Your task to perform on an android device: open chrome privacy settings Image 0: 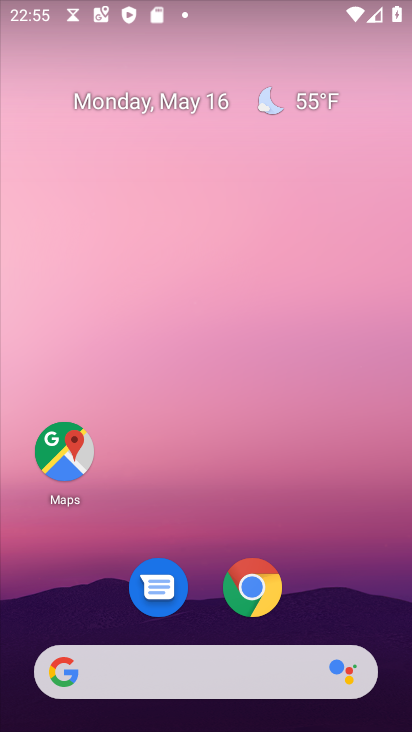
Step 0: drag from (334, 571) to (207, 15)
Your task to perform on an android device: open chrome privacy settings Image 1: 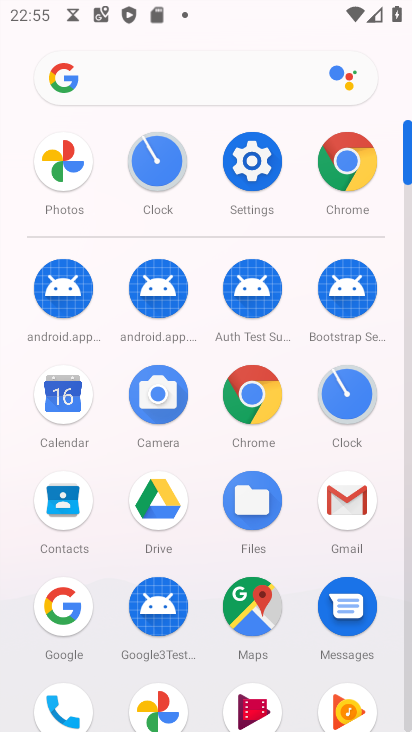
Step 1: drag from (19, 573) to (24, 147)
Your task to perform on an android device: open chrome privacy settings Image 2: 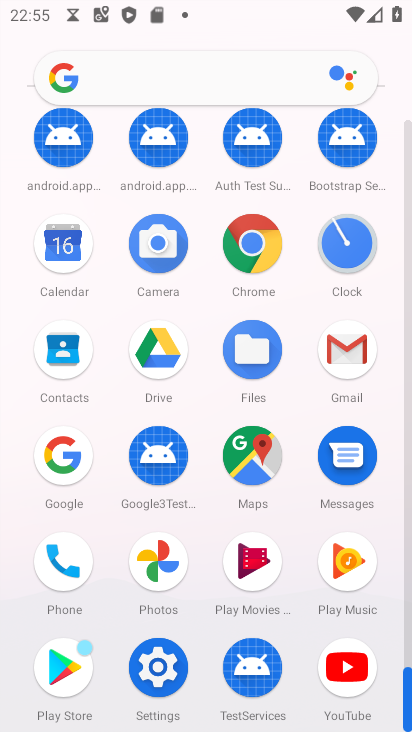
Step 2: click (247, 240)
Your task to perform on an android device: open chrome privacy settings Image 3: 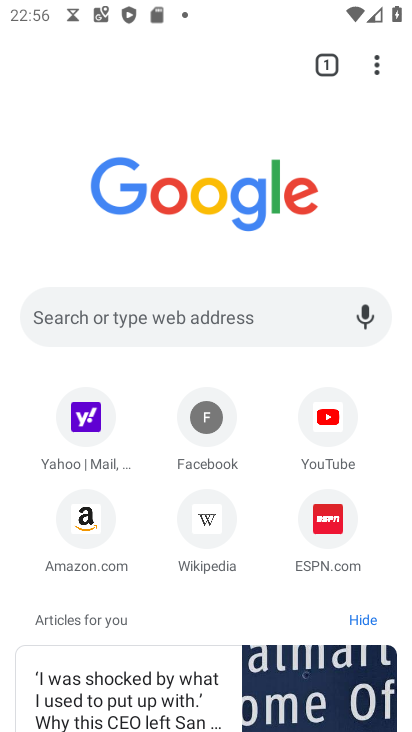
Step 3: drag from (30, 508) to (10, 138)
Your task to perform on an android device: open chrome privacy settings Image 4: 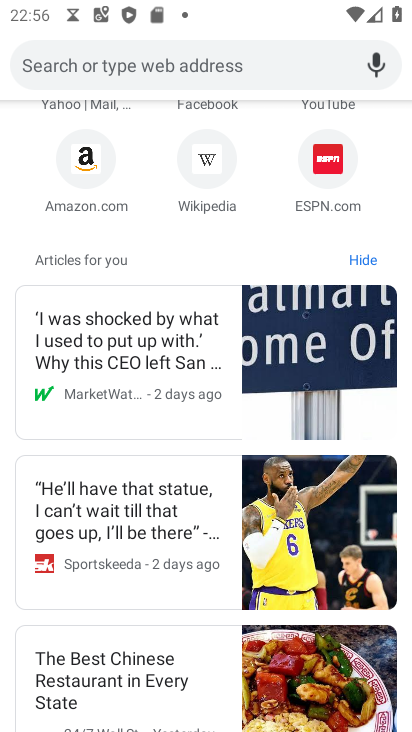
Step 4: drag from (144, 233) to (146, 550)
Your task to perform on an android device: open chrome privacy settings Image 5: 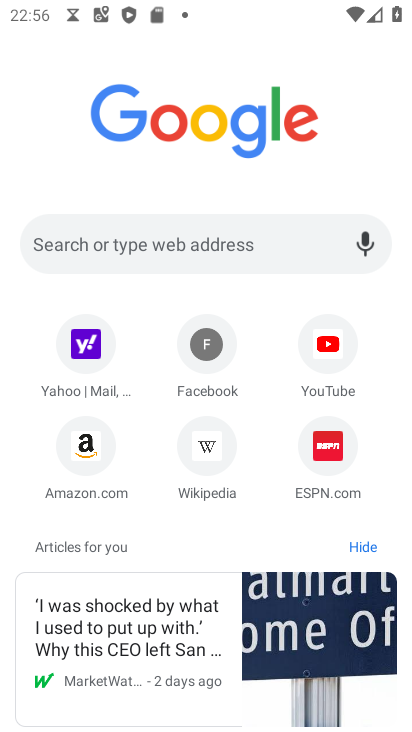
Step 5: drag from (326, 111) to (285, 455)
Your task to perform on an android device: open chrome privacy settings Image 6: 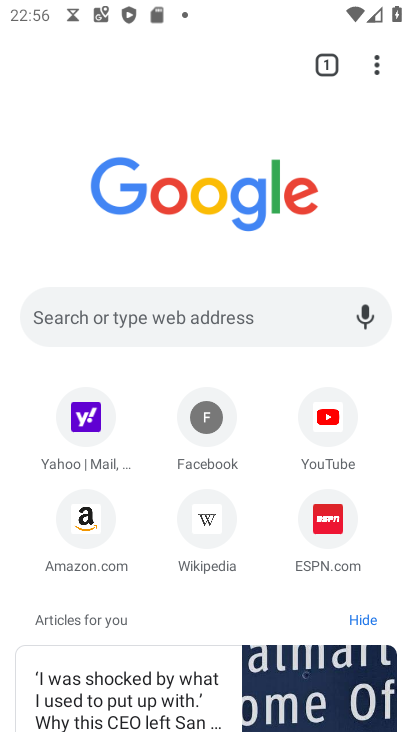
Step 6: drag from (375, 69) to (153, 543)
Your task to perform on an android device: open chrome privacy settings Image 7: 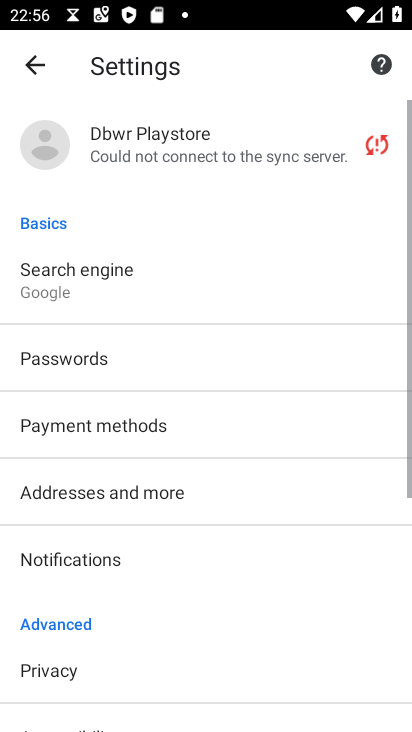
Step 7: click (175, 609)
Your task to perform on an android device: open chrome privacy settings Image 8: 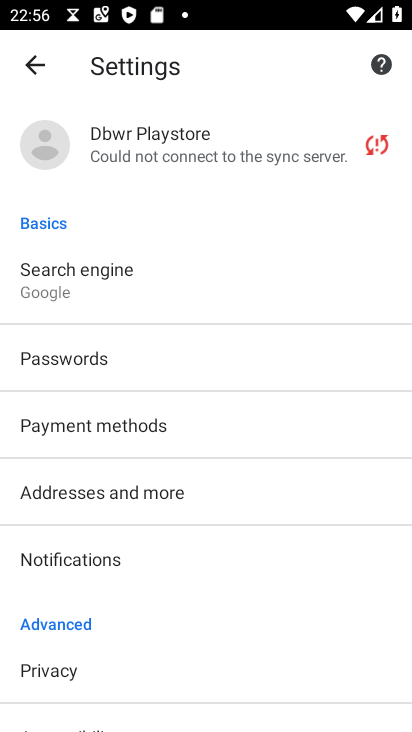
Step 8: click (110, 665)
Your task to perform on an android device: open chrome privacy settings Image 9: 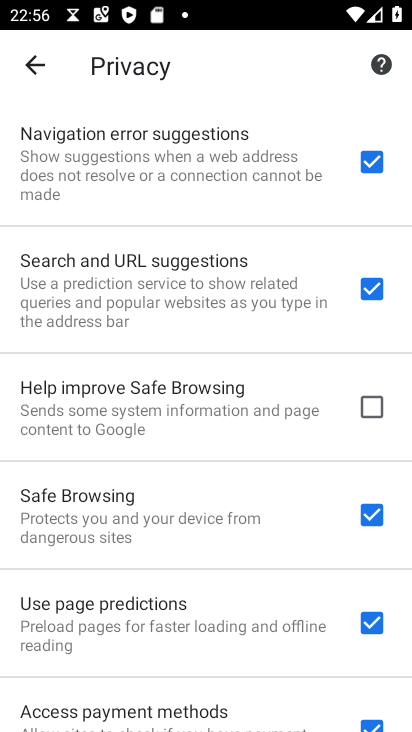
Step 9: task complete